Your task to perform on an android device: turn off notifications settings in the gmail app Image 0: 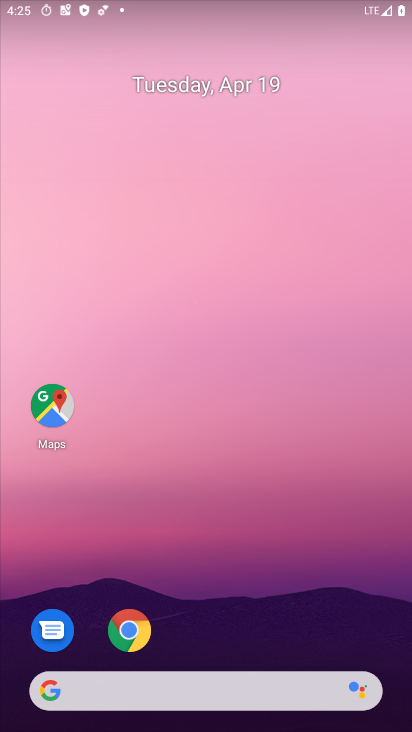
Step 0: drag from (259, 630) to (263, 293)
Your task to perform on an android device: turn off notifications settings in the gmail app Image 1: 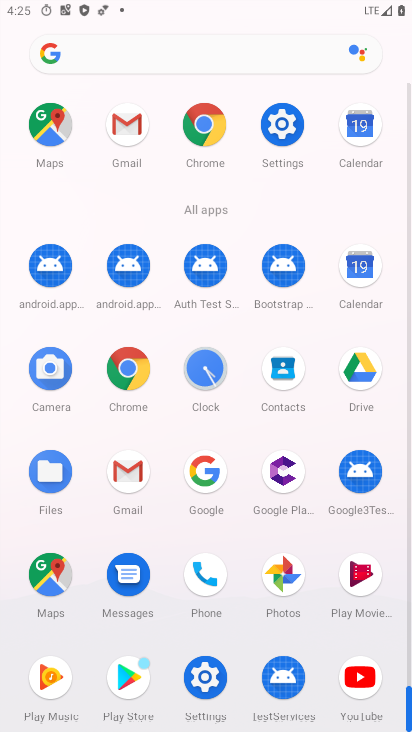
Step 1: click (135, 464)
Your task to perform on an android device: turn off notifications settings in the gmail app Image 2: 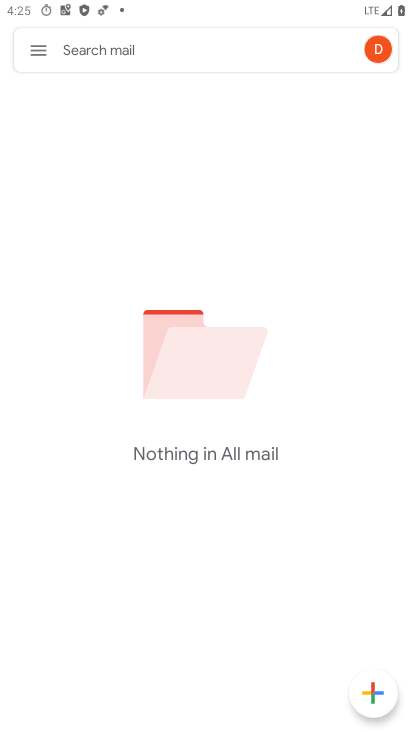
Step 2: click (36, 57)
Your task to perform on an android device: turn off notifications settings in the gmail app Image 3: 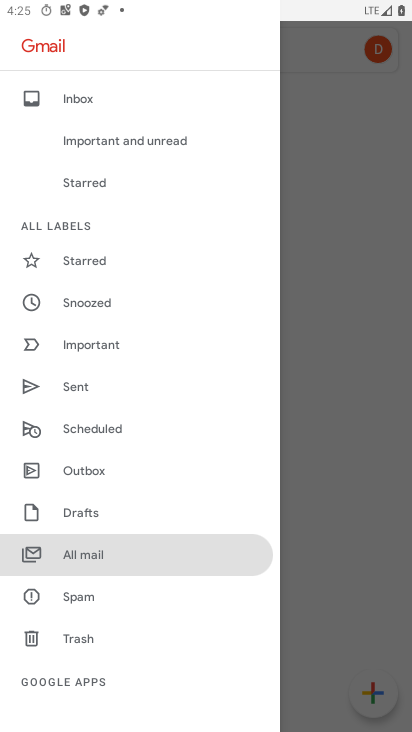
Step 3: drag from (159, 621) to (180, 319)
Your task to perform on an android device: turn off notifications settings in the gmail app Image 4: 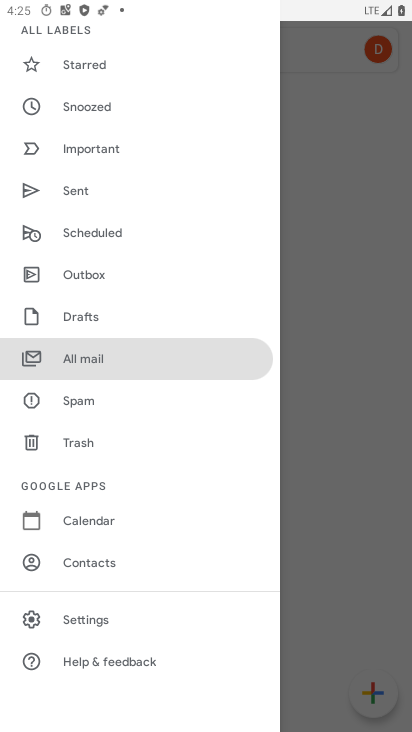
Step 4: click (117, 617)
Your task to perform on an android device: turn off notifications settings in the gmail app Image 5: 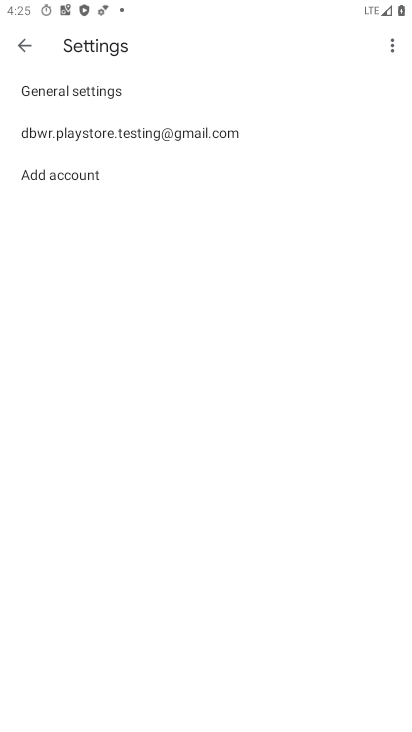
Step 5: click (119, 135)
Your task to perform on an android device: turn off notifications settings in the gmail app Image 6: 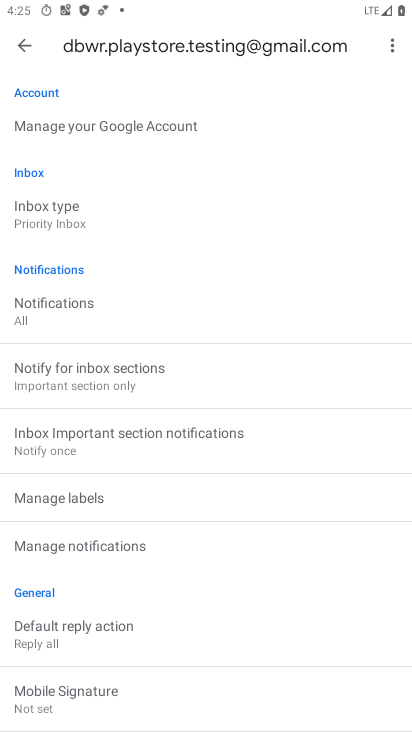
Step 6: drag from (189, 646) to (192, 398)
Your task to perform on an android device: turn off notifications settings in the gmail app Image 7: 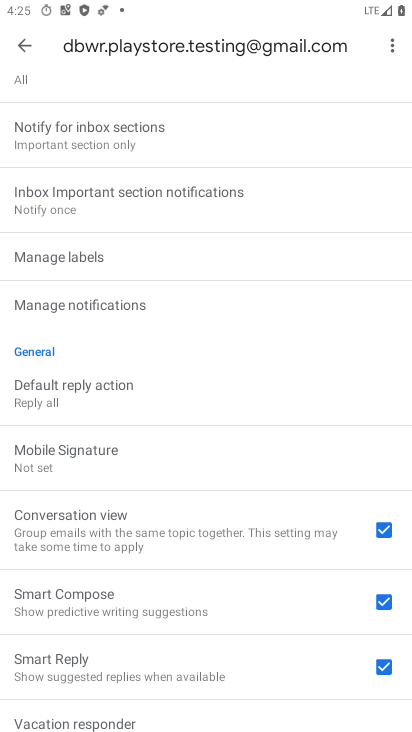
Step 7: click (166, 653)
Your task to perform on an android device: turn off notifications settings in the gmail app Image 8: 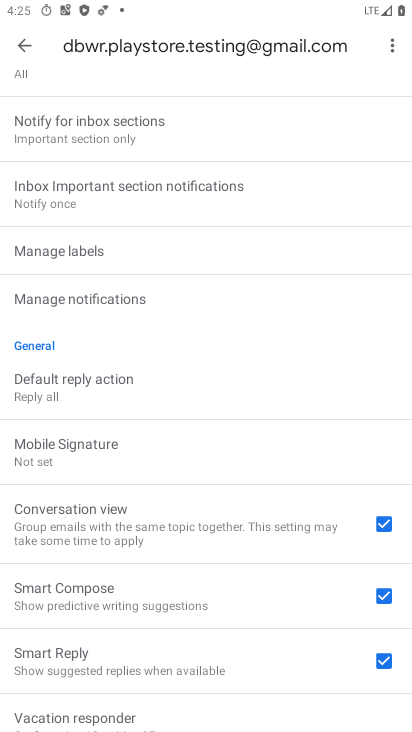
Step 8: click (119, 303)
Your task to perform on an android device: turn off notifications settings in the gmail app Image 9: 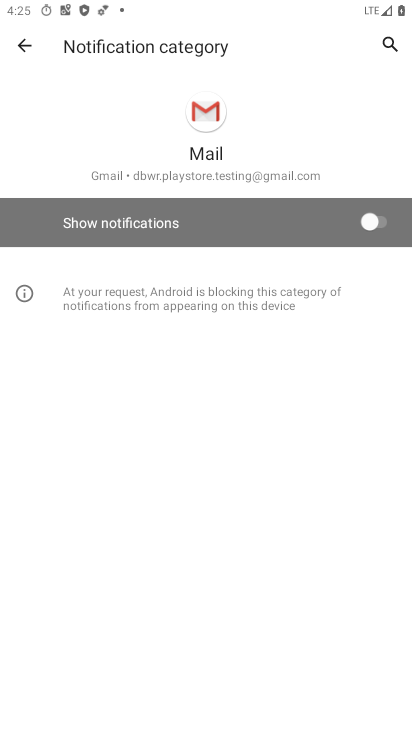
Step 9: task complete